Your task to perform on an android device: Open Google Maps and go to "Timeline" Image 0: 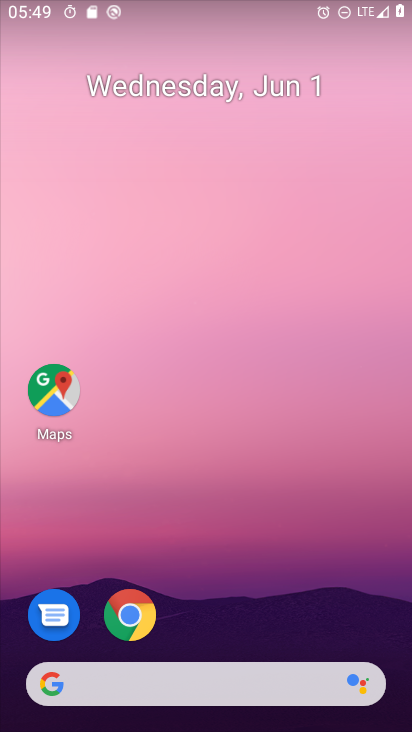
Step 0: drag from (297, 584) to (363, 10)
Your task to perform on an android device: Open Google Maps and go to "Timeline" Image 1: 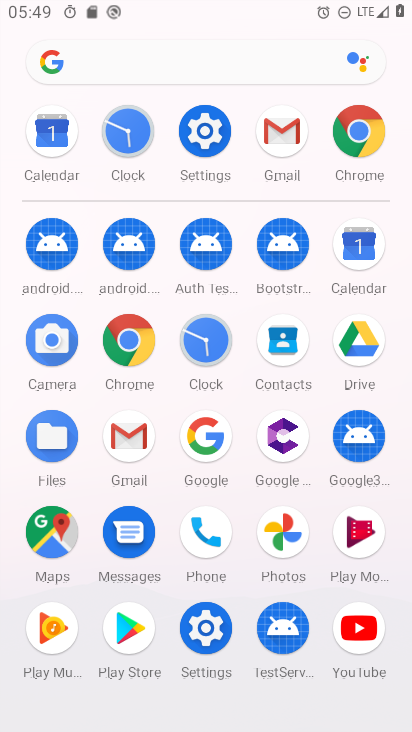
Step 1: click (40, 538)
Your task to perform on an android device: Open Google Maps and go to "Timeline" Image 2: 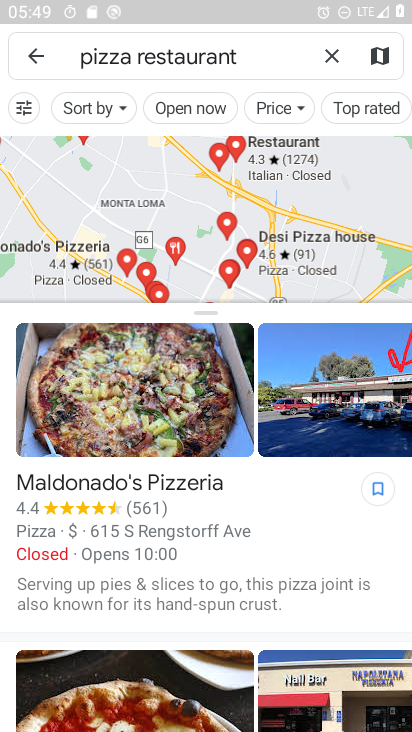
Step 2: press back button
Your task to perform on an android device: Open Google Maps and go to "Timeline" Image 3: 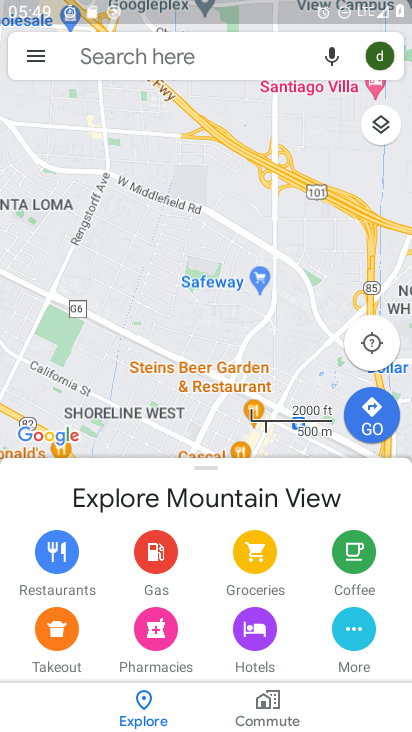
Step 3: drag from (386, 59) to (372, 146)
Your task to perform on an android device: Open Google Maps and go to "Timeline" Image 4: 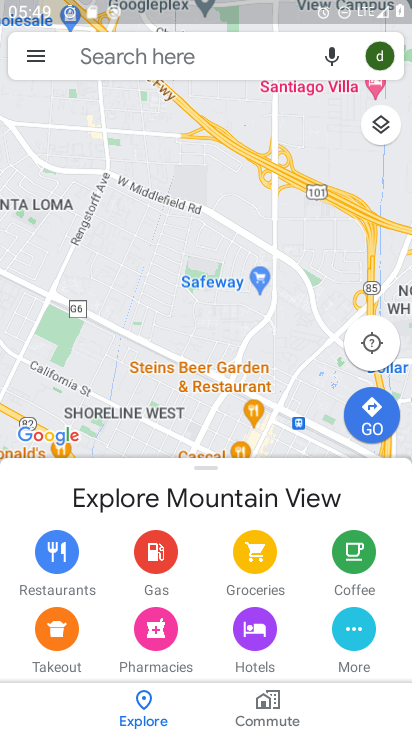
Step 4: click (35, 55)
Your task to perform on an android device: Open Google Maps and go to "Timeline" Image 5: 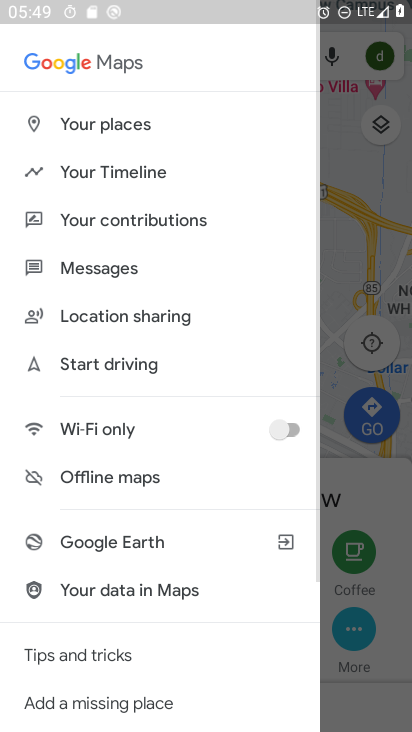
Step 5: click (139, 170)
Your task to perform on an android device: Open Google Maps and go to "Timeline" Image 6: 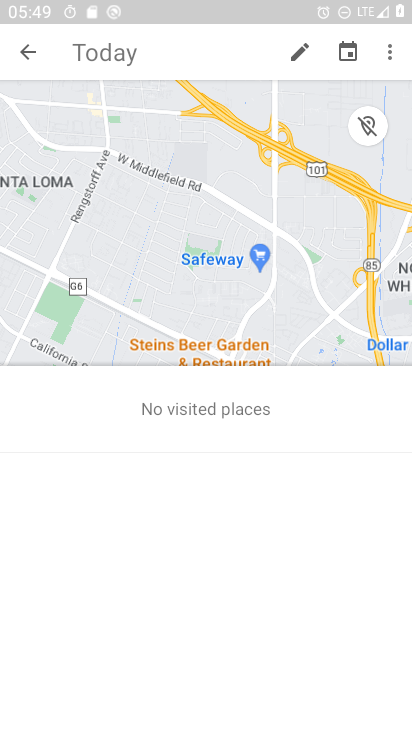
Step 6: task complete